Your task to perform on an android device: Go to Yahoo.com Image 0: 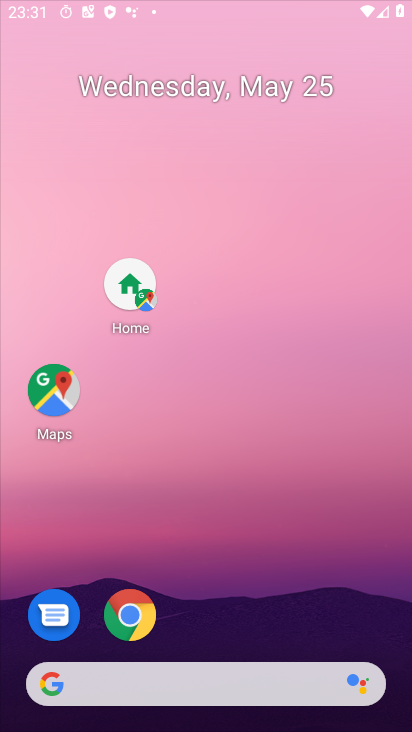
Step 0: press home button
Your task to perform on an android device: Go to Yahoo.com Image 1: 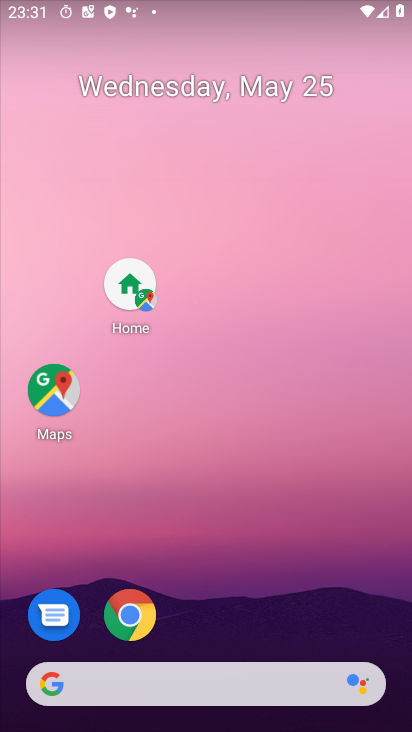
Step 1: click (48, 679)
Your task to perform on an android device: Go to Yahoo.com Image 2: 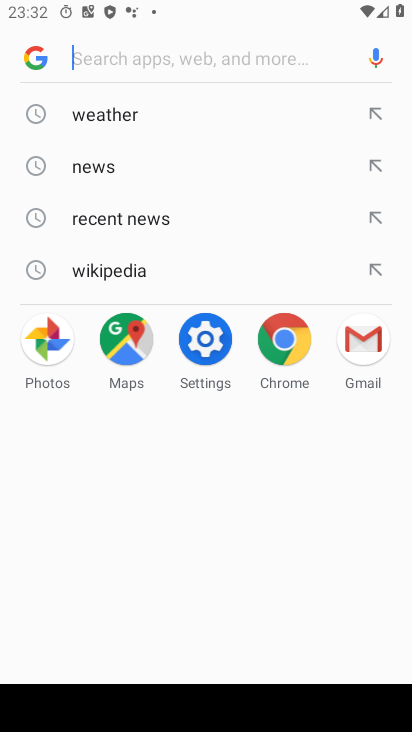
Step 2: type "Yahoo.com"
Your task to perform on an android device: Go to Yahoo.com Image 3: 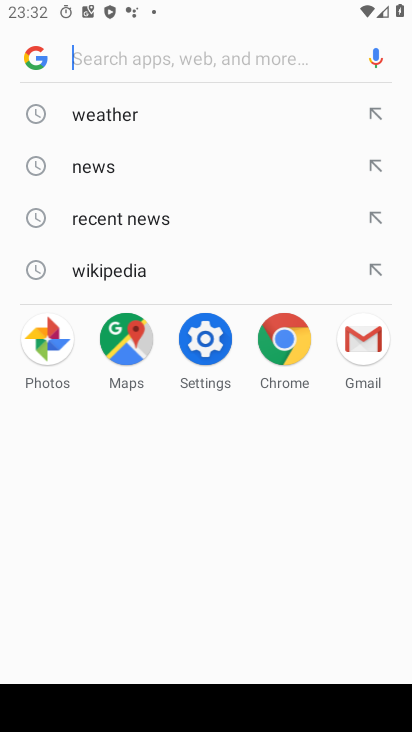
Step 3: click (159, 44)
Your task to perform on an android device: Go to Yahoo.com Image 4: 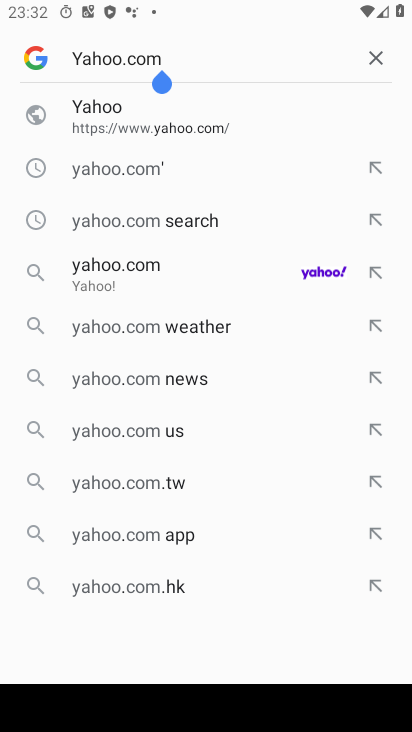
Step 4: click (105, 114)
Your task to perform on an android device: Go to Yahoo.com Image 5: 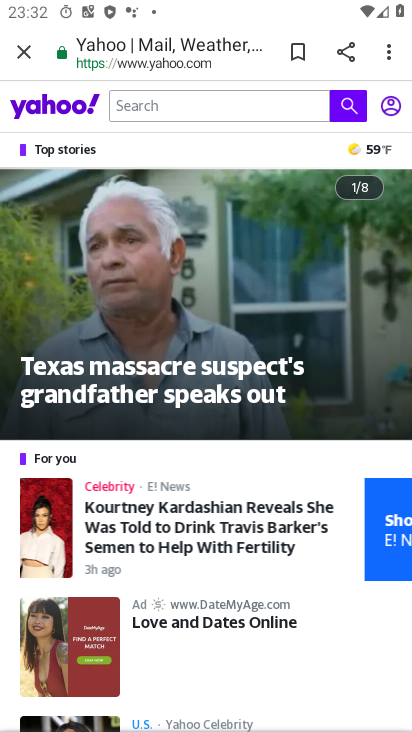
Step 5: task complete